Your task to perform on an android device: allow cookies in the chrome app Image 0: 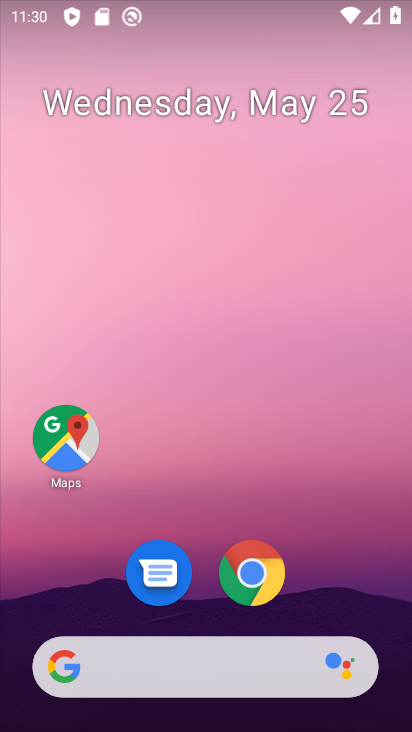
Step 0: click (239, 580)
Your task to perform on an android device: allow cookies in the chrome app Image 1: 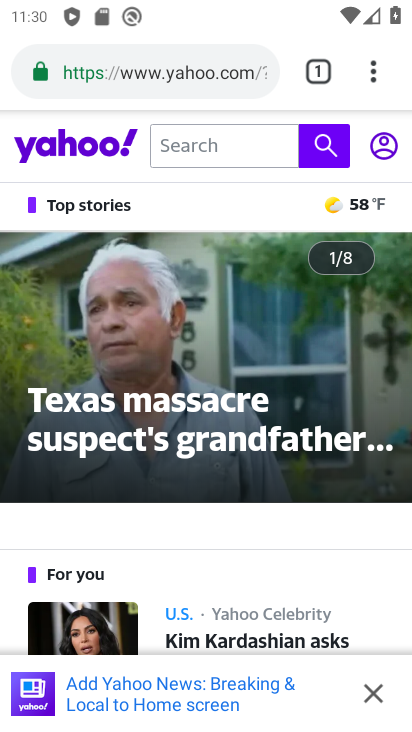
Step 1: drag from (377, 71) to (184, 555)
Your task to perform on an android device: allow cookies in the chrome app Image 2: 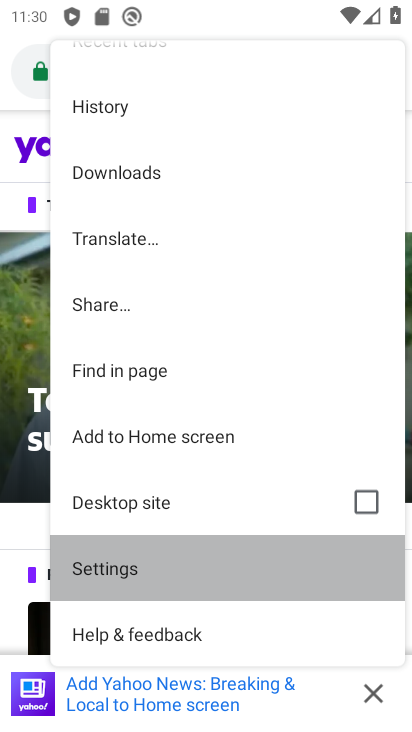
Step 2: click (184, 555)
Your task to perform on an android device: allow cookies in the chrome app Image 3: 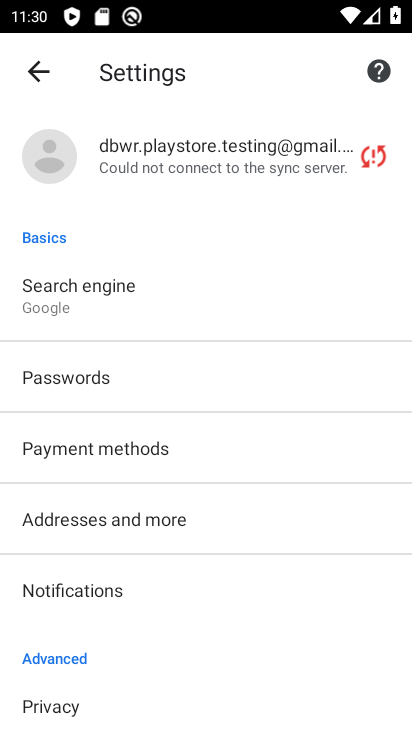
Step 3: drag from (171, 593) to (191, 268)
Your task to perform on an android device: allow cookies in the chrome app Image 4: 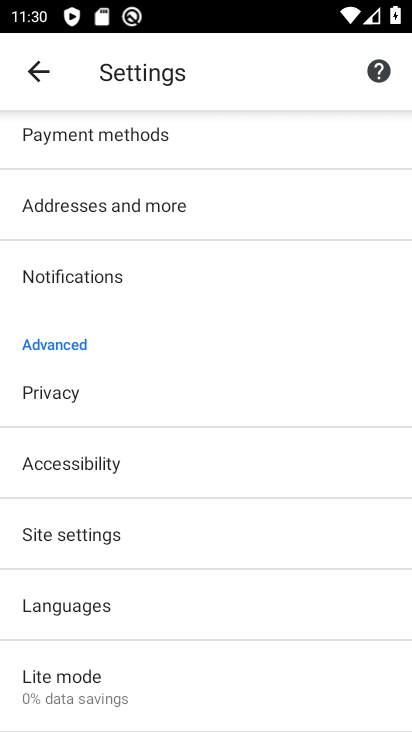
Step 4: click (147, 543)
Your task to perform on an android device: allow cookies in the chrome app Image 5: 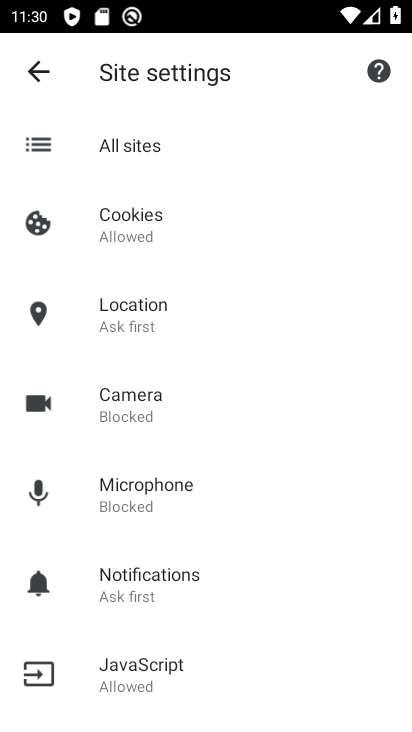
Step 5: click (176, 225)
Your task to perform on an android device: allow cookies in the chrome app Image 6: 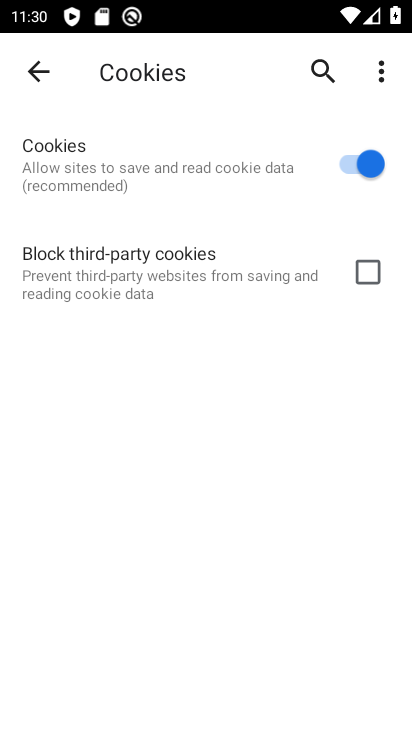
Step 6: task complete